Your task to perform on an android device: Turn on the flashlight Image 0: 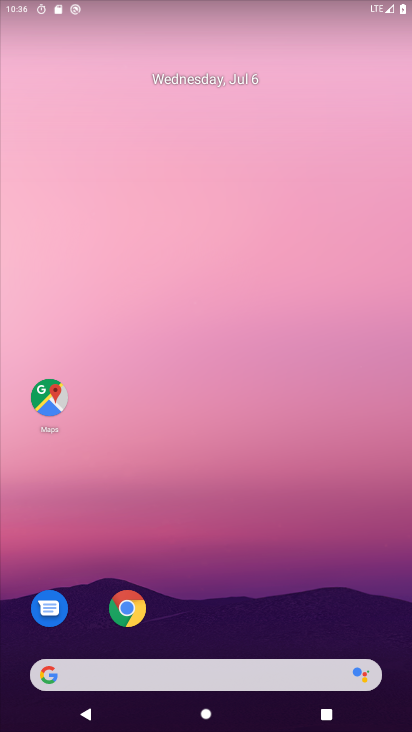
Step 0: drag from (220, 632) to (283, 1)
Your task to perform on an android device: Turn on the flashlight Image 1: 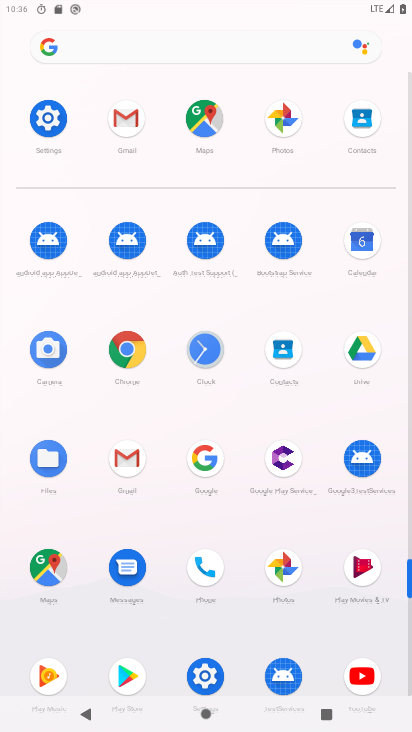
Step 1: click (202, 666)
Your task to perform on an android device: Turn on the flashlight Image 2: 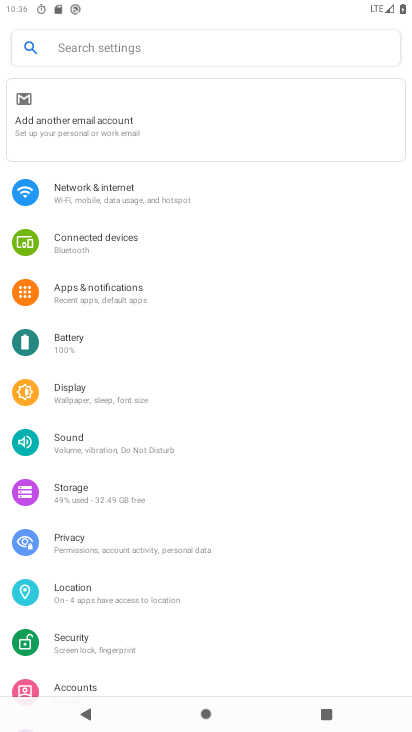
Step 2: click (205, 37)
Your task to perform on an android device: Turn on the flashlight Image 3: 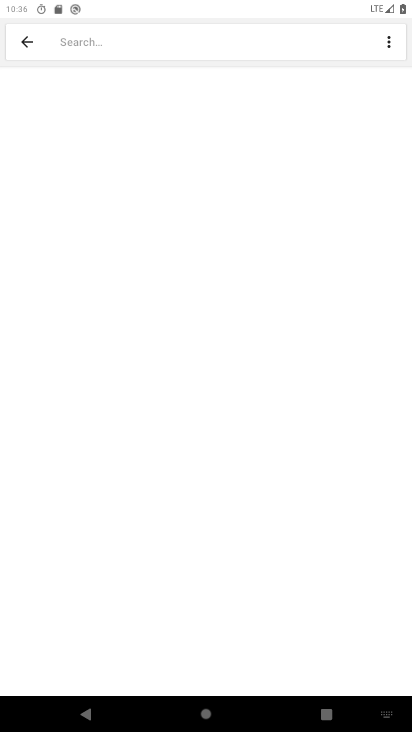
Step 3: type "flashlight"
Your task to perform on an android device: Turn on the flashlight Image 4: 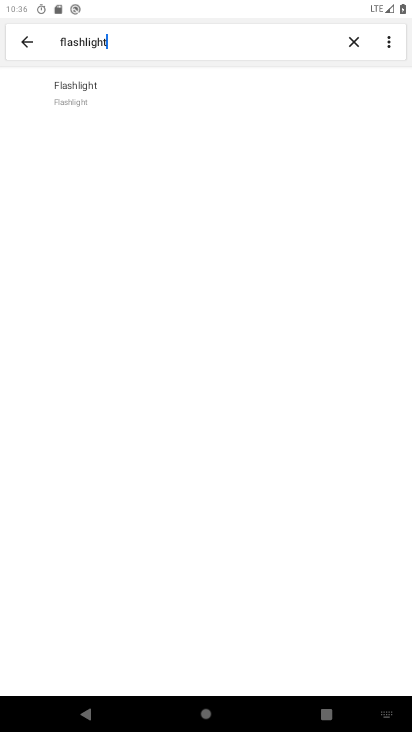
Step 4: task complete